Your task to perform on an android device: Open calendar and show me the first week of next month Image 0: 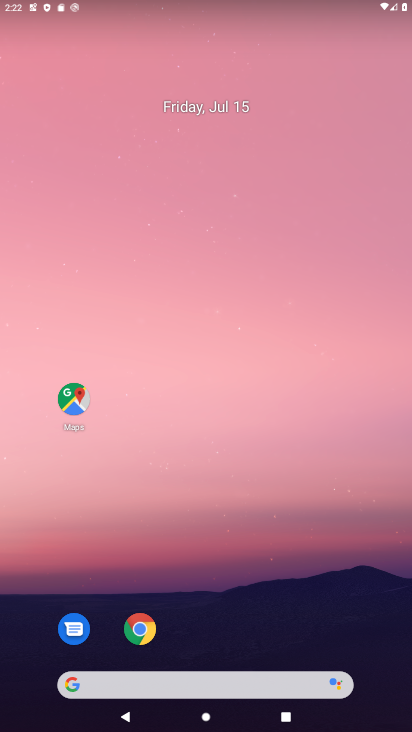
Step 0: drag from (210, 644) to (265, 121)
Your task to perform on an android device: Open calendar and show me the first week of next month Image 1: 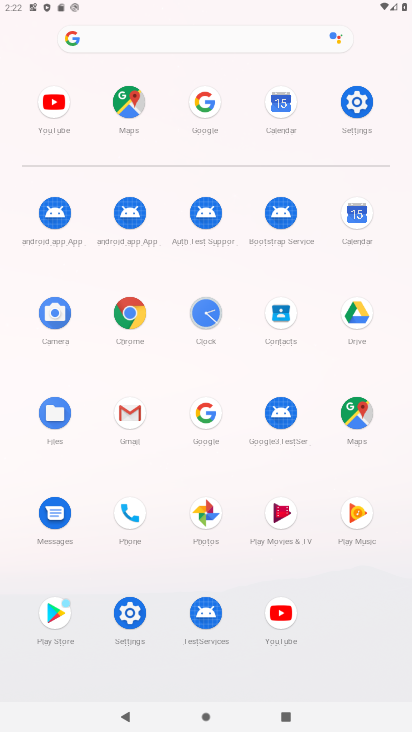
Step 1: click (360, 218)
Your task to perform on an android device: Open calendar and show me the first week of next month Image 2: 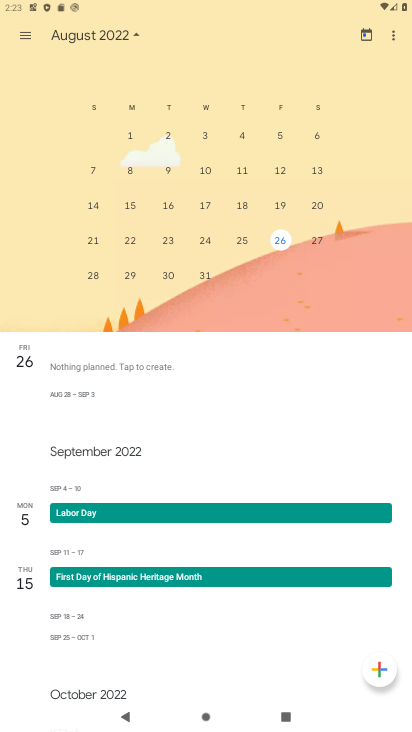
Step 2: drag from (370, 271) to (261, 255)
Your task to perform on an android device: Open calendar and show me the first week of next month Image 3: 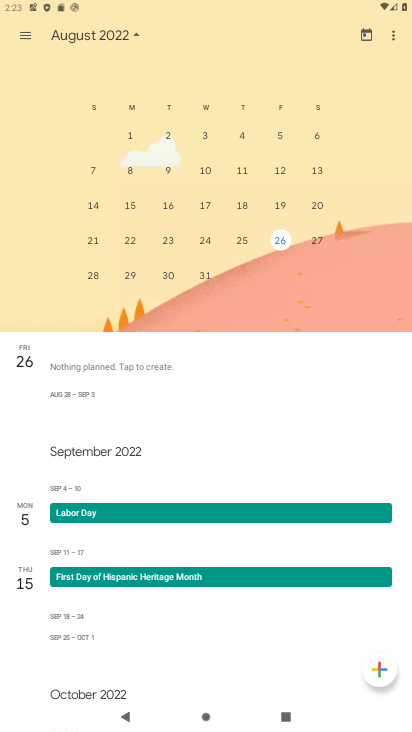
Step 3: click (245, 138)
Your task to perform on an android device: Open calendar and show me the first week of next month Image 4: 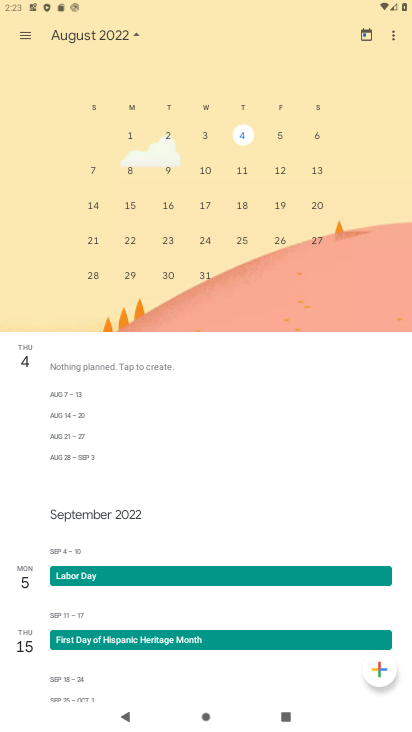
Step 4: task complete